Your task to perform on an android device: Open Google Image 0: 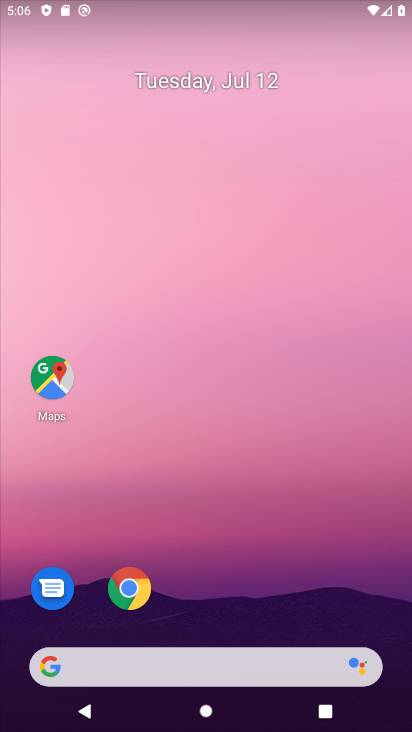
Step 0: drag from (230, 403) to (254, 104)
Your task to perform on an android device: Open Google Image 1: 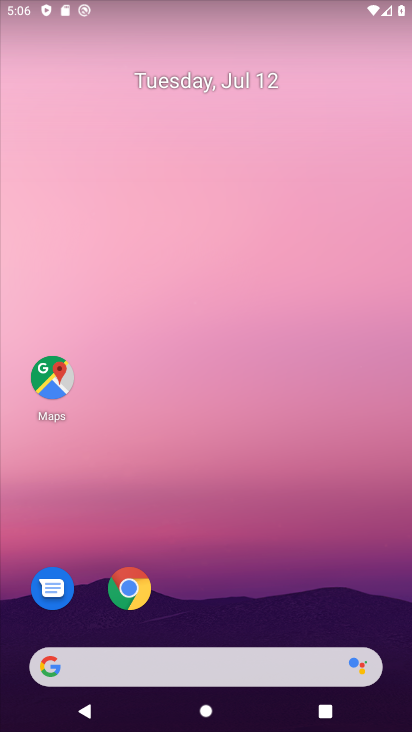
Step 1: drag from (278, 539) to (341, 63)
Your task to perform on an android device: Open Google Image 2: 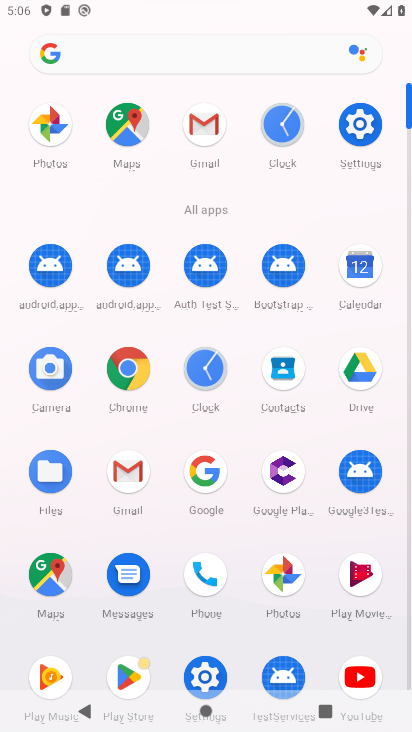
Step 2: click (194, 472)
Your task to perform on an android device: Open Google Image 3: 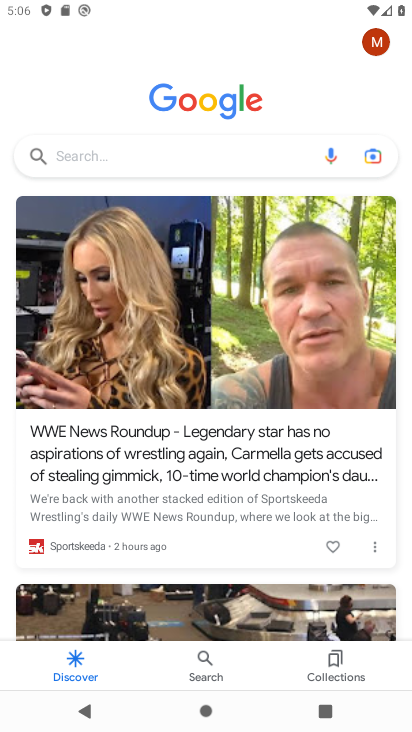
Step 3: task complete